Your task to perform on an android device: toggle show notifications on the lock screen Image 0: 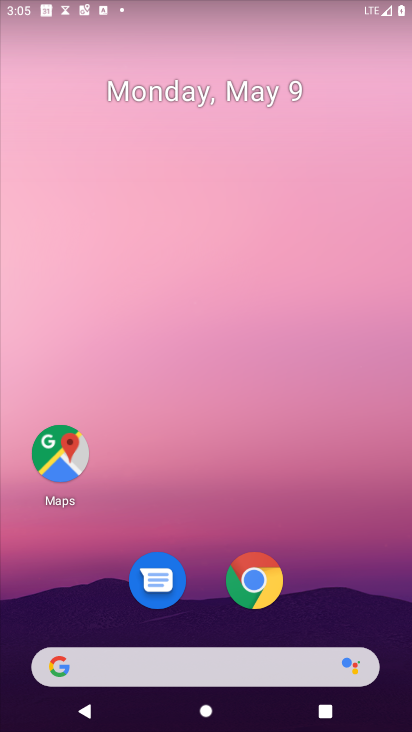
Step 0: drag from (334, 576) to (273, 87)
Your task to perform on an android device: toggle show notifications on the lock screen Image 1: 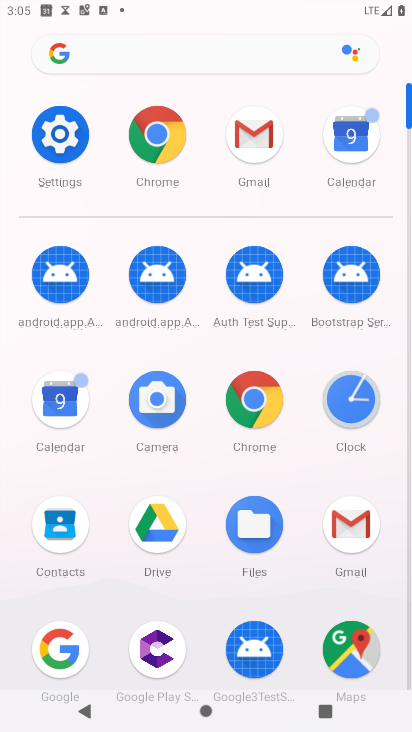
Step 1: click (76, 150)
Your task to perform on an android device: toggle show notifications on the lock screen Image 2: 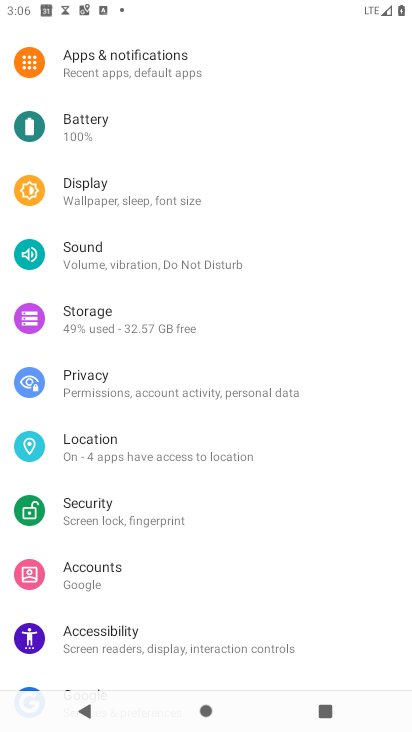
Step 2: click (129, 89)
Your task to perform on an android device: toggle show notifications on the lock screen Image 3: 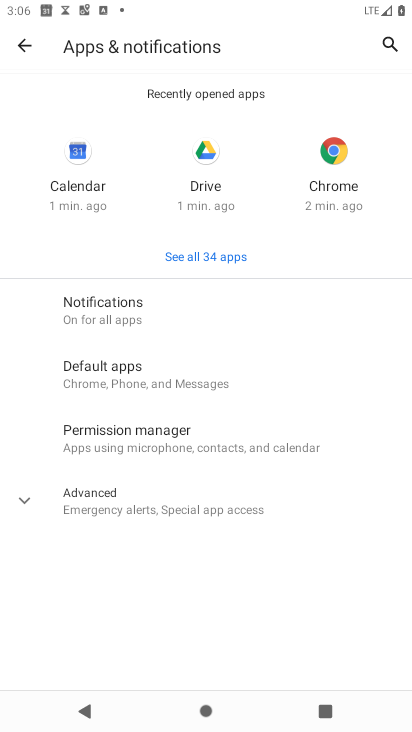
Step 3: click (136, 323)
Your task to perform on an android device: toggle show notifications on the lock screen Image 4: 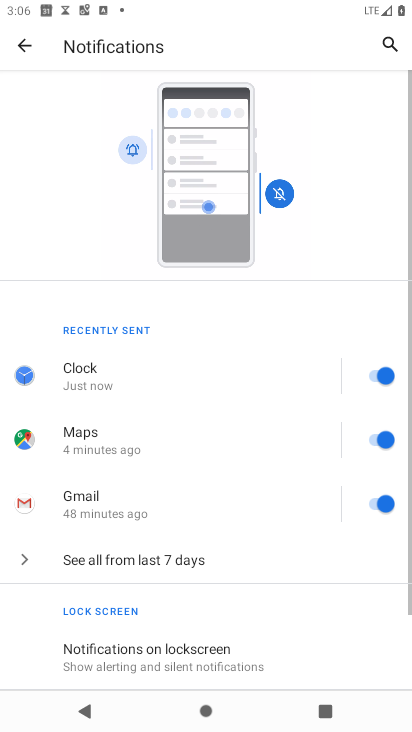
Step 4: click (258, 655)
Your task to perform on an android device: toggle show notifications on the lock screen Image 5: 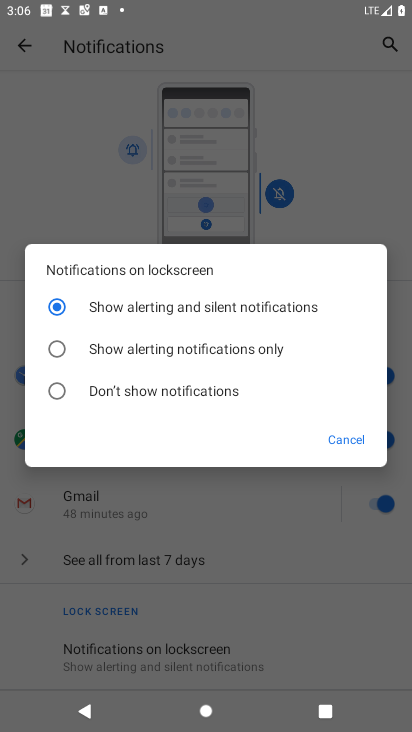
Step 5: click (122, 398)
Your task to perform on an android device: toggle show notifications on the lock screen Image 6: 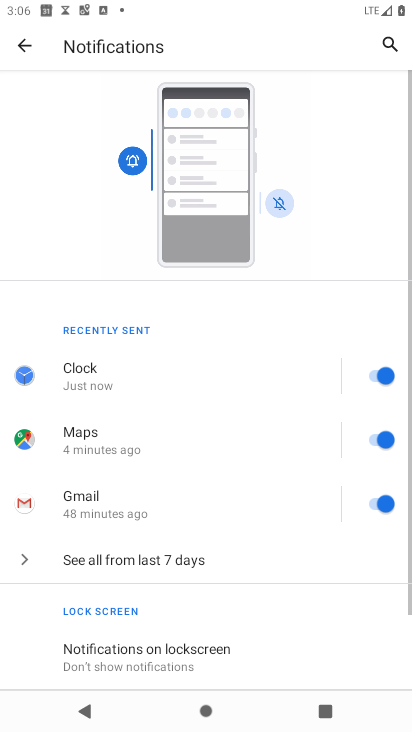
Step 6: task complete